Your task to perform on an android device: change alarm snooze length Image 0: 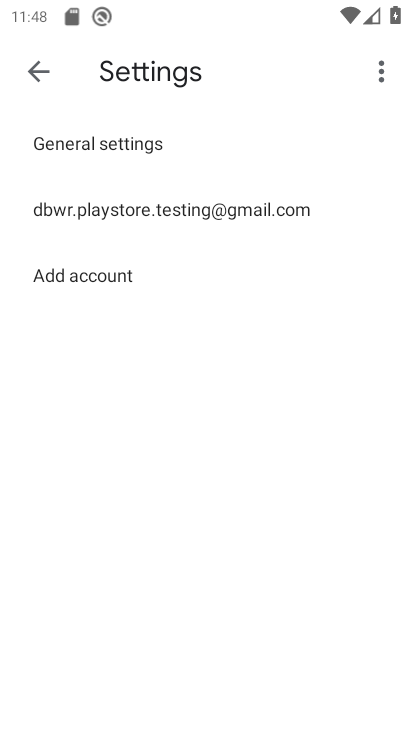
Step 0: press home button
Your task to perform on an android device: change alarm snooze length Image 1: 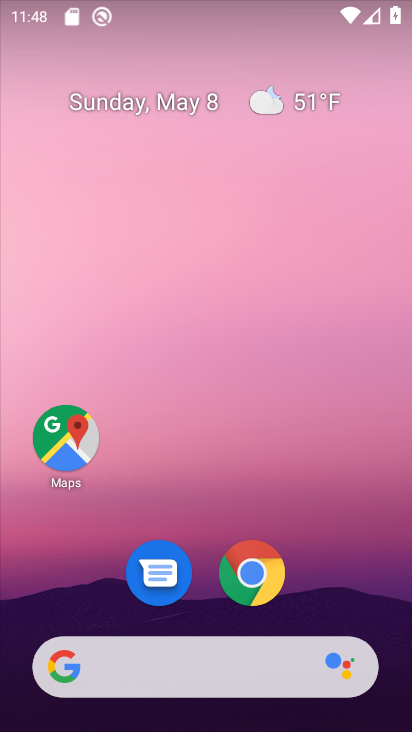
Step 1: drag from (164, 617) to (222, 257)
Your task to perform on an android device: change alarm snooze length Image 2: 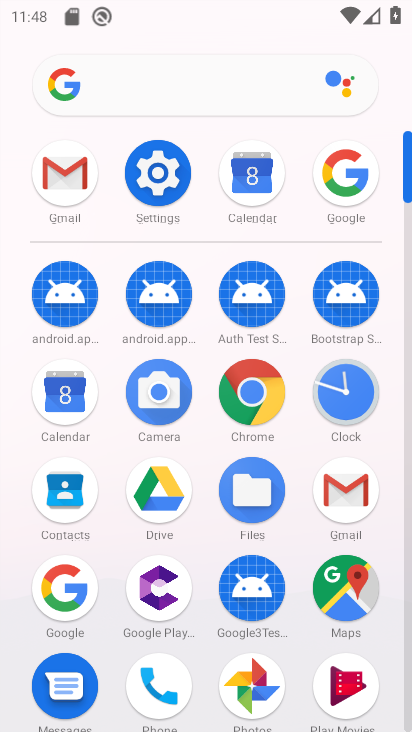
Step 2: click (329, 405)
Your task to perform on an android device: change alarm snooze length Image 3: 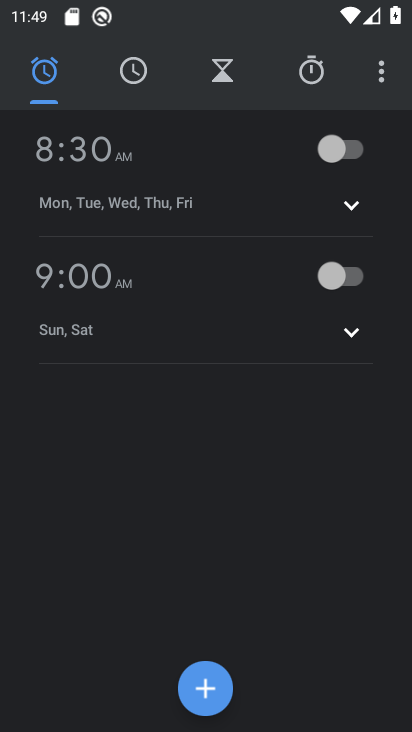
Step 3: click (378, 73)
Your task to perform on an android device: change alarm snooze length Image 4: 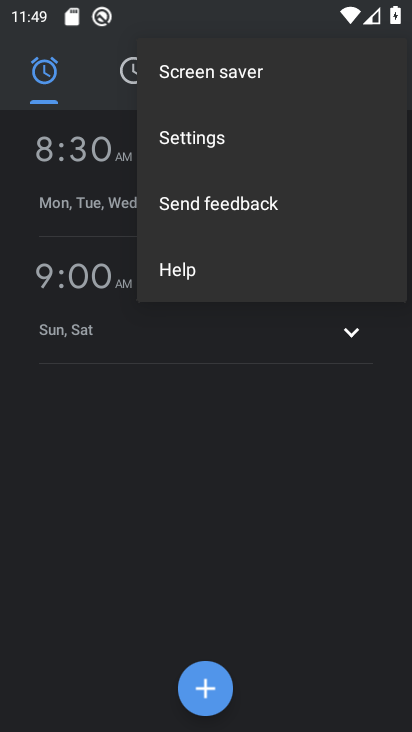
Step 4: click (191, 143)
Your task to perform on an android device: change alarm snooze length Image 5: 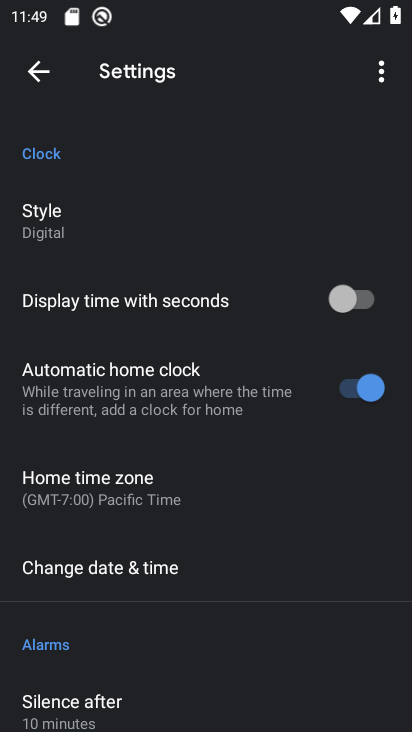
Step 5: drag from (108, 714) to (97, 320)
Your task to perform on an android device: change alarm snooze length Image 6: 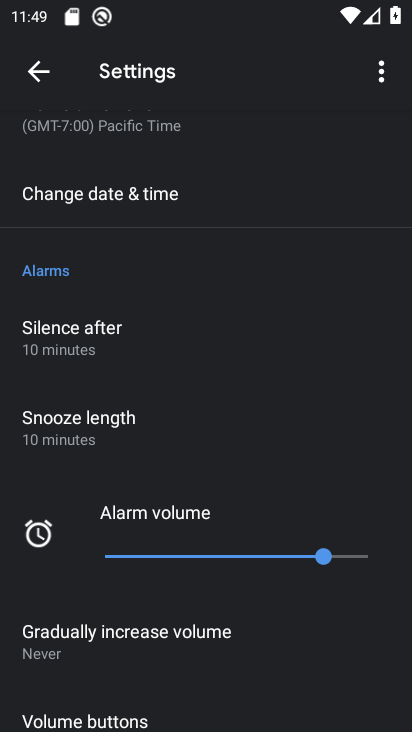
Step 6: click (66, 425)
Your task to perform on an android device: change alarm snooze length Image 7: 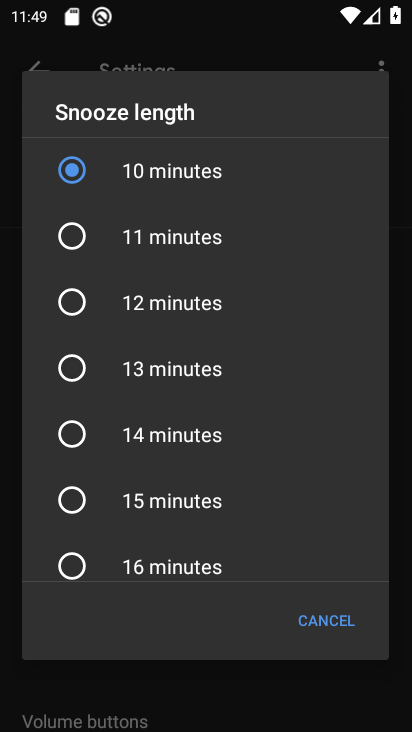
Step 7: click (80, 306)
Your task to perform on an android device: change alarm snooze length Image 8: 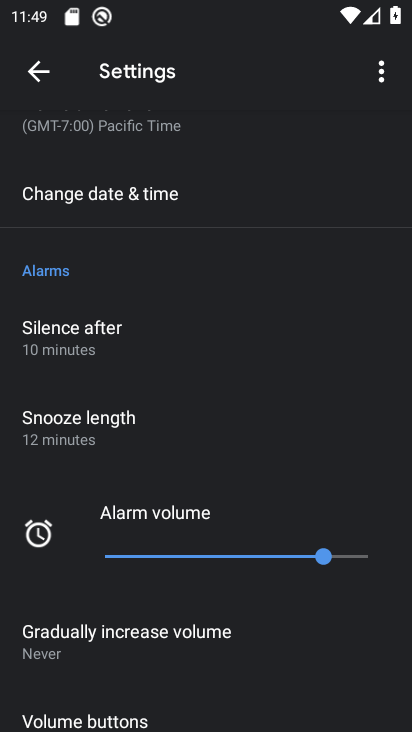
Step 8: task complete